Your task to perform on an android device: turn on data saver in the chrome app Image 0: 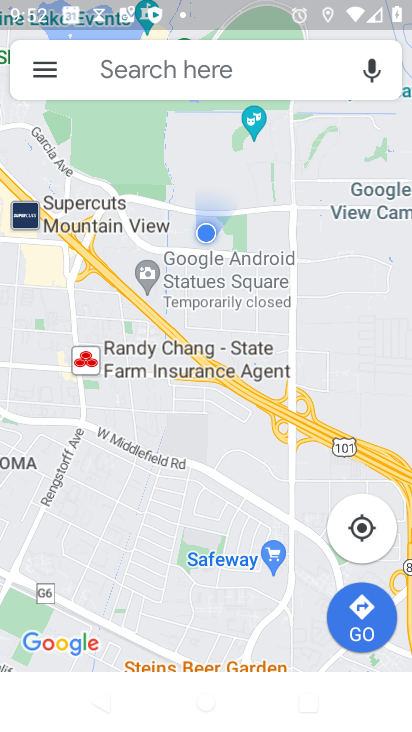
Step 0: press home button
Your task to perform on an android device: turn on data saver in the chrome app Image 1: 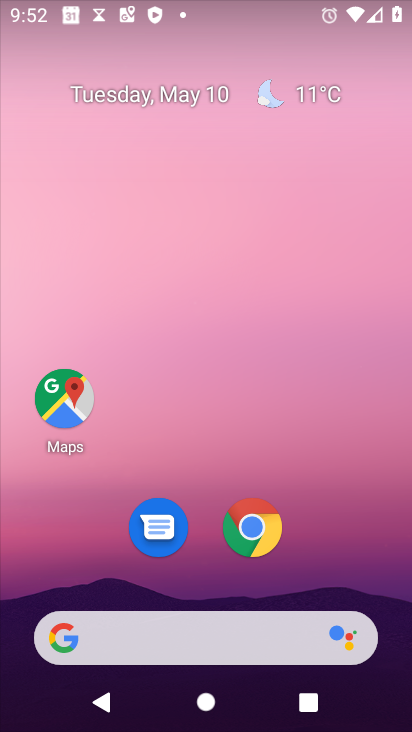
Step 1: click (262, 524)
Your task to perform on an android device: turn on data saver in the chrome app Image 2: 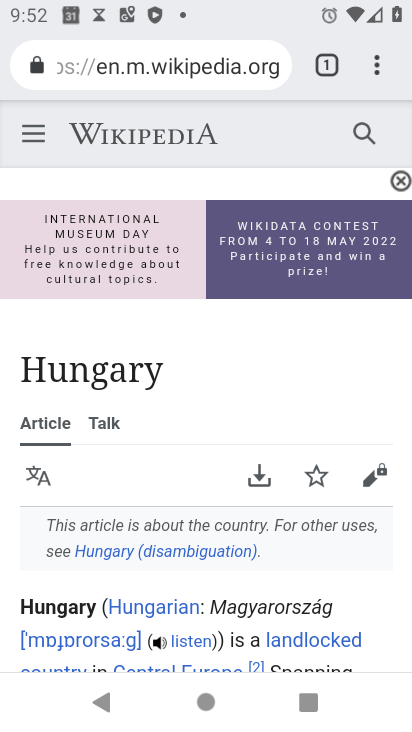
Step 2: click (376, 53)
Your task to perform on an android device: turn on data saver in the chrome app Image 3: 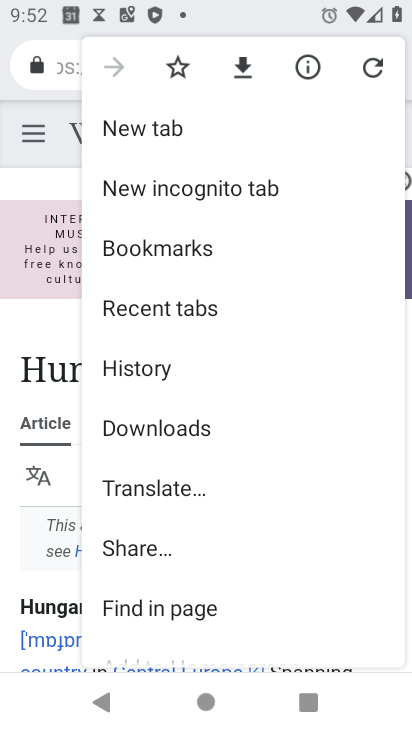
Step 3: drag from (264, 499) to (210, 166)
Your task to perform on an android device: turn on data saver in the chrome app Image 4: 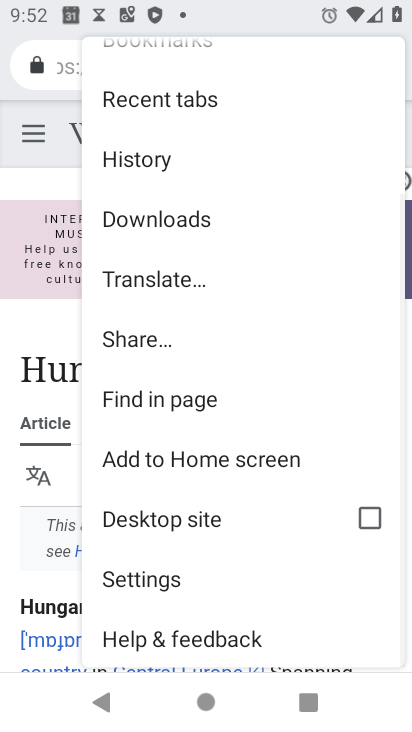
Step 4: click (208, 579)
Your task to perform on an android device: turn on data saver in the chrome app Image 5: 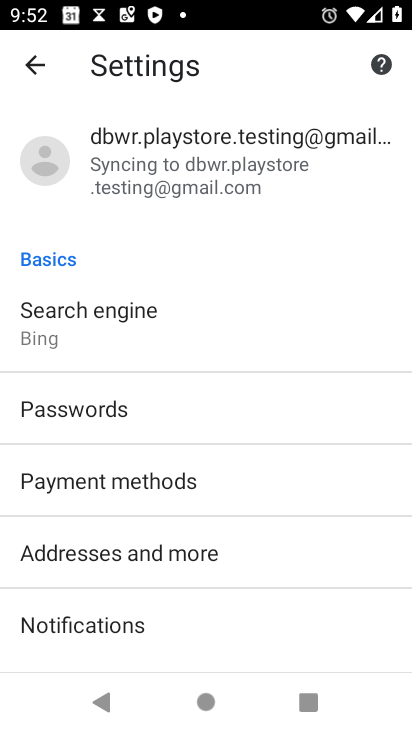
Step 5: drag from (208, 579) to (178, 298)
Your task to perform on an android device: turn on data saver in the chrome app Image 6: 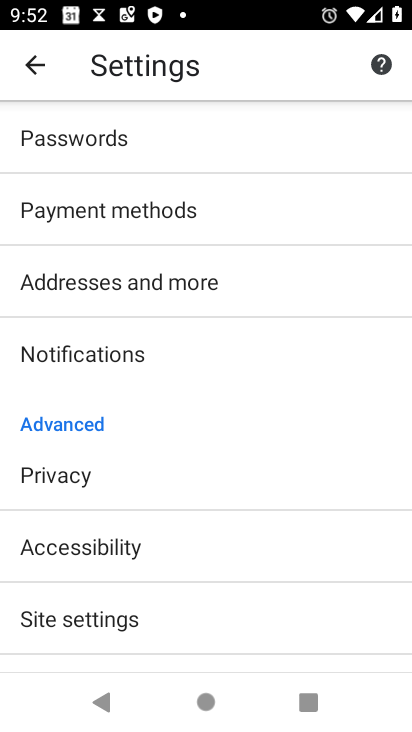
Step 6: drag from (172, 500) to (133, 271)
Your task to perform on an android device: turn on data saver in the chrome app Image 7: 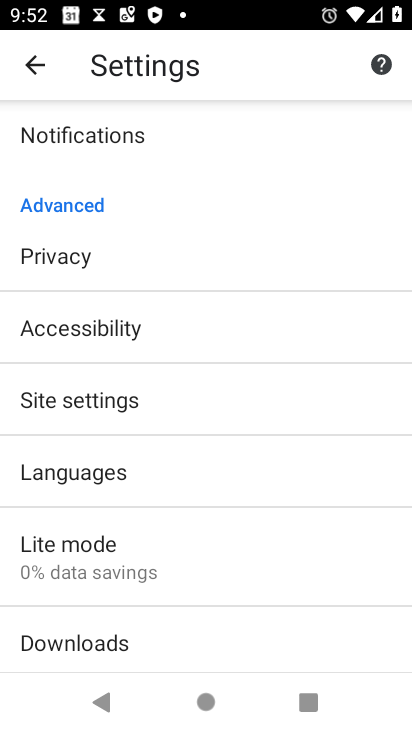
Step 7: click (103, 541)
Your task to perform on an android device: turn on data saver in the chrome app Image 8: 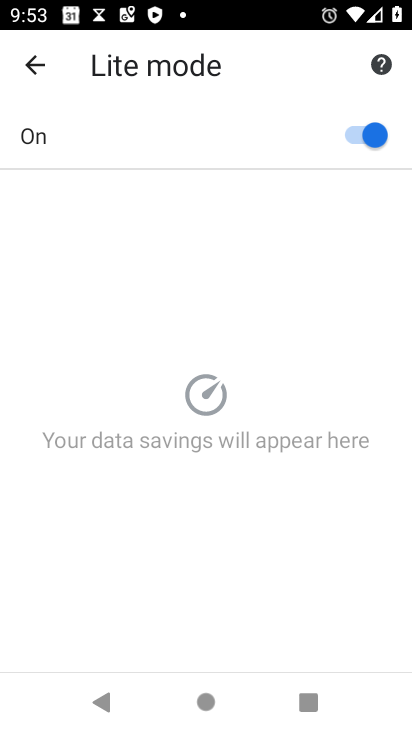
Step 8: task complete